Your task to perform on an android device: open app "Expedia: Hotels, Flights & Car" (install if not already installed) Image 0: 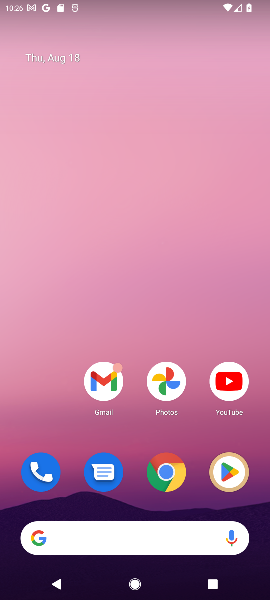
Step 0: click (228, 474)
Your task to perform on an android device: open app "Expedia: Hotels, Flights & Car" (install if not already installed) Image 1: 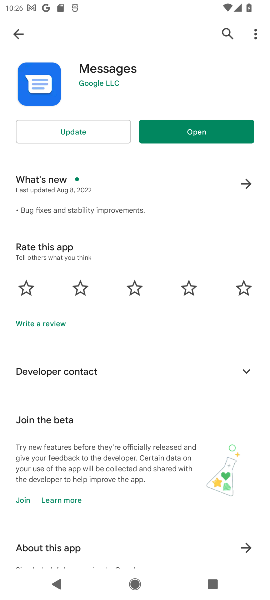
Step 1: click (224, 42)
Your task to perform on an android device: open app "Expedia: Hotels, Flights & Car" (install if not already installed) Image 2: 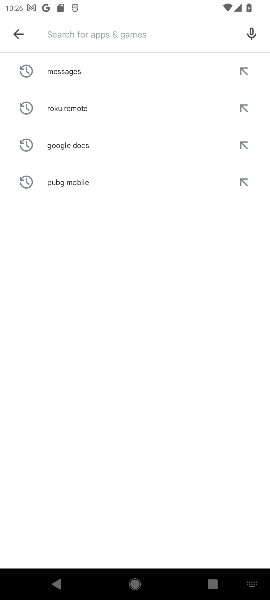
Step 2: type "expedia"
Your task to perform on an android device: open app "Expedia: Hotels, Flights & Car" (install if not already installed) Image 3: 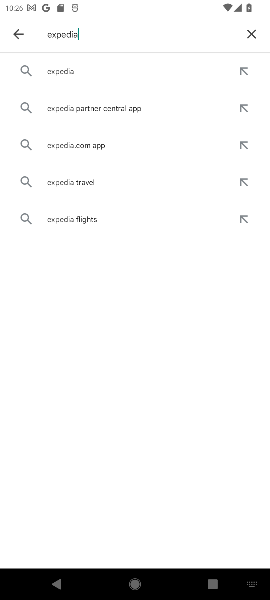
Step 3: click (97, 67)
Your task to perform on an android device: open app "Expedia: Hotels, Flights & Car" (install if not already installed) Image 4: 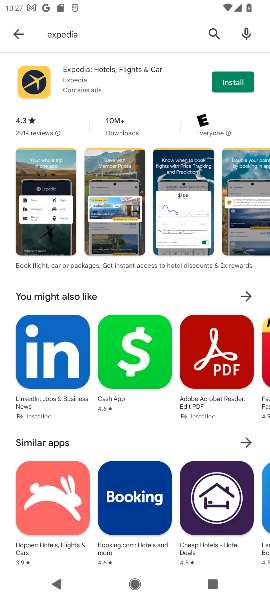
Step 4: click (234, 84)
Your task to perform on an android device: open app "Expedia: Hotels, Flights & Car" (install if not already installed) Image 5: 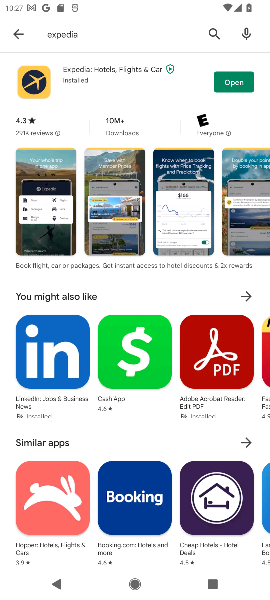
Step 5: click (233, 85)
Your task to perform on an android device: open app "Expedia: Hotels, Flights & Car" (install if not already installed) Image 6: 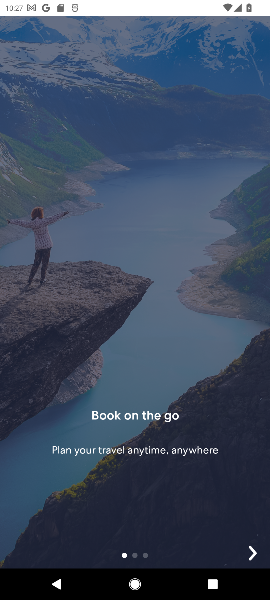
Step 6: task complete